Your task to perform on an android device: Go to notification settings Image 0: 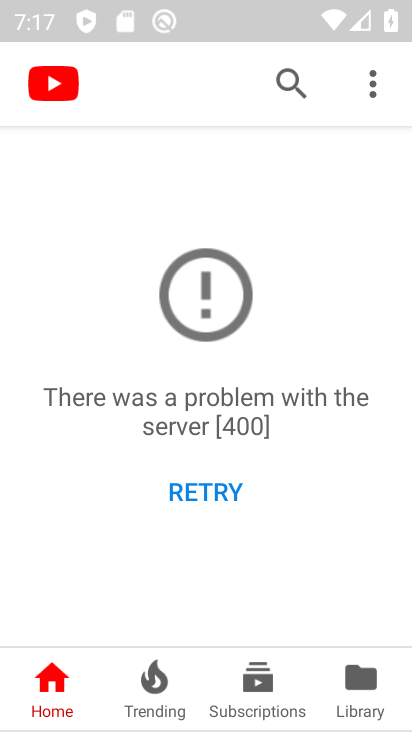
Step 0: press home button
Your task to perform on an android device: Go to notification settings Image 1: 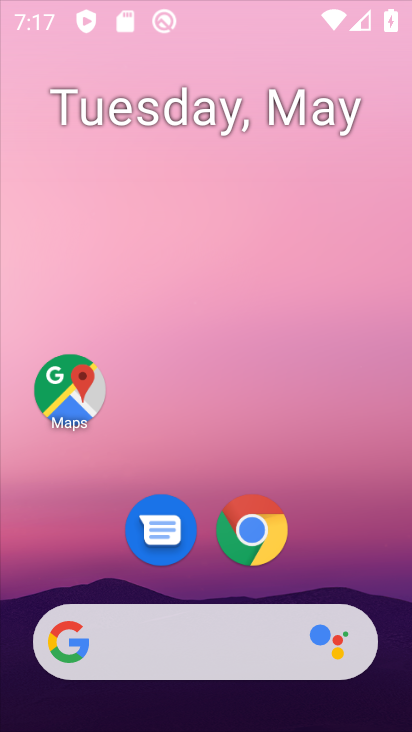
Step 1: drag from (110, 728) to (135, 75)
Your task to perform on an android device: Go to notification settings Image 2: 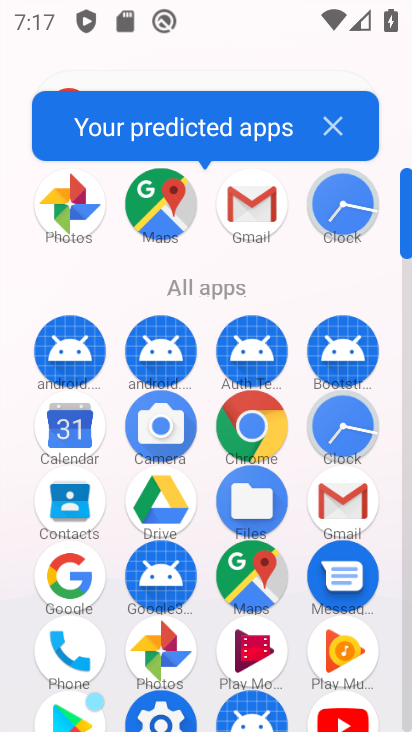
Step 2: drag from (110, 508) to (123, 181)
Your task to perform on an android device: Go to notification settings Image 3: 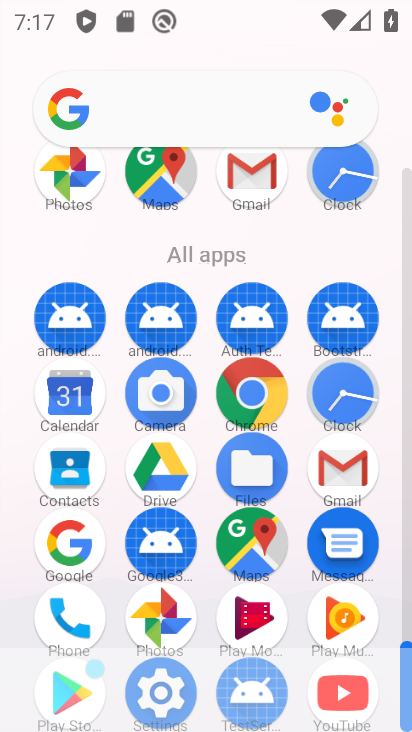
Step 3: click (131, 696)
Your task to perform on an android device: Go to notification settings Image 4: 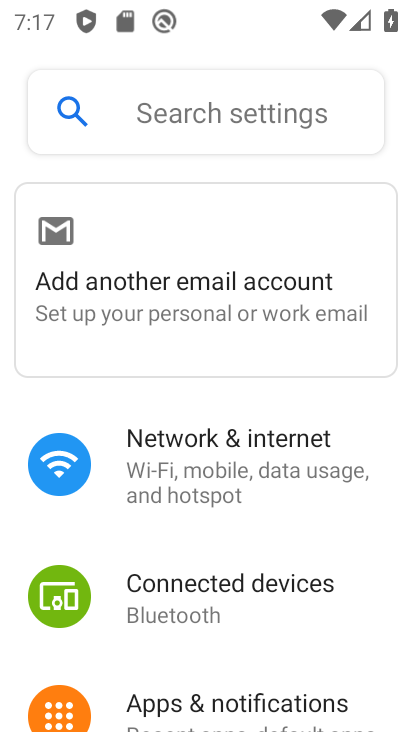
Step 4: click (212, 709)
Your task to perform on an android device: Go to notification settings Image 5: 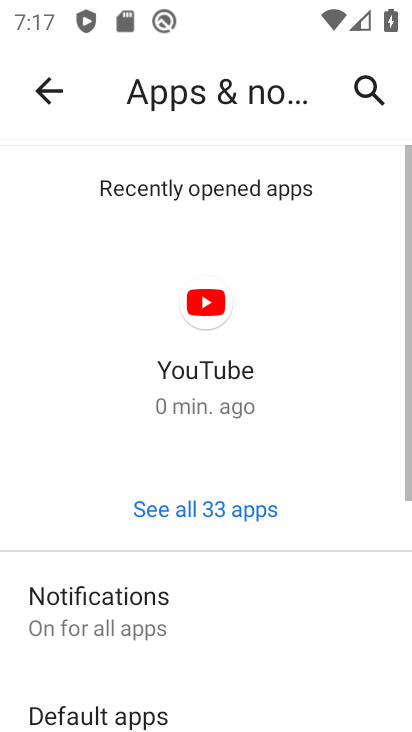
Step 5: task complete